Your task to perform on an android device: check android version Image 0: 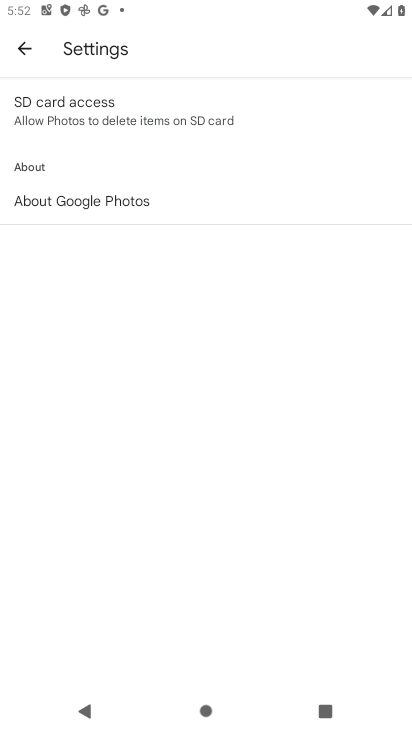
Step 0: press home button
Your task to perform on an android device: check android version Image 1: 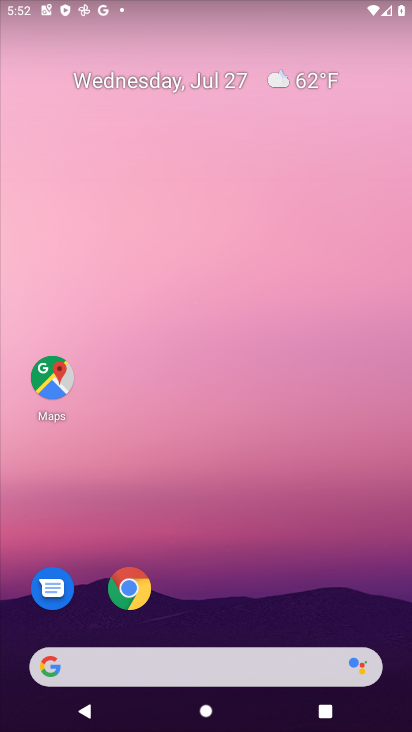
Step 1: drag from (179, 519) to (216, 122)
Your task to perform on an android device: check android version Image 2: 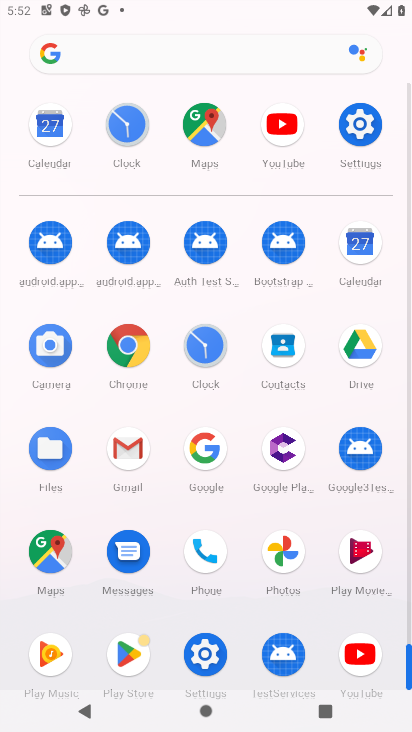
Step 2: click (360, 125)
Your task to perform on an android device: check android version Image 3: 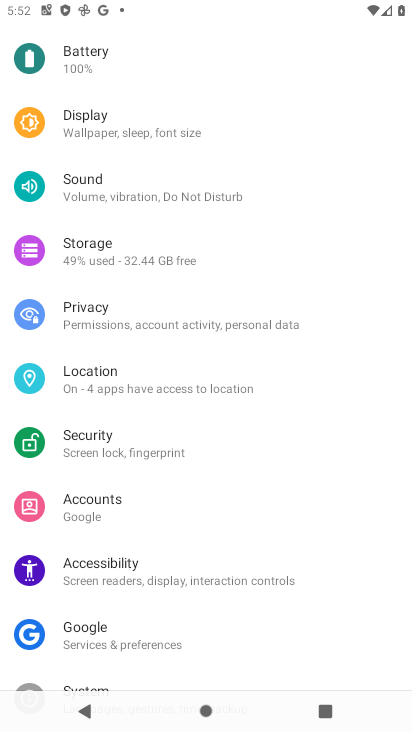
Step 3: drag from (105, 640) to (204, 207)
Your task to perform on an android device: check android version Image 4: 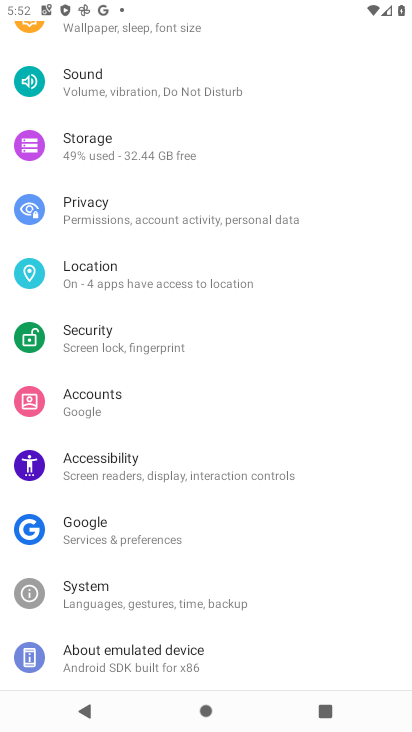
Step 4: click (76, 657)
Your task to perform on an android device: check android version Image 5: 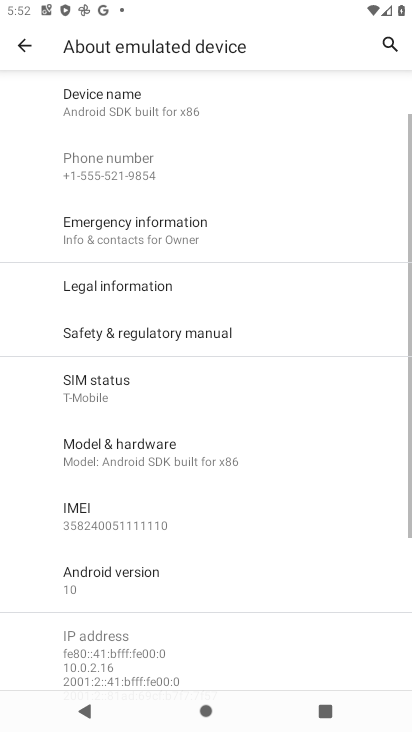
Step 5: click (142, 593)
Your task to perform on an android device: check android version Image 6: 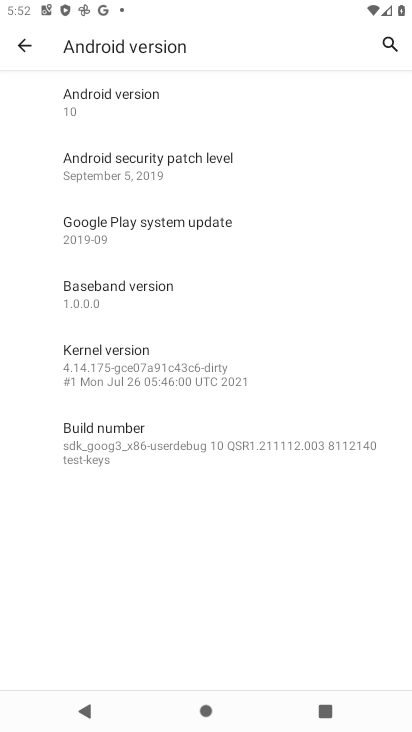
Step 6: task complete